Your task to perform on an android device: Go to accessibility settings Image 0: 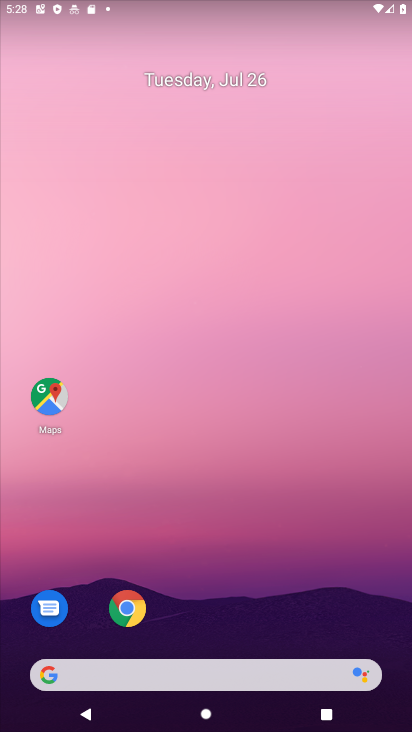
Step 0: press home button
Your task to perform on an android device: Go to accessibility settings Image 1: 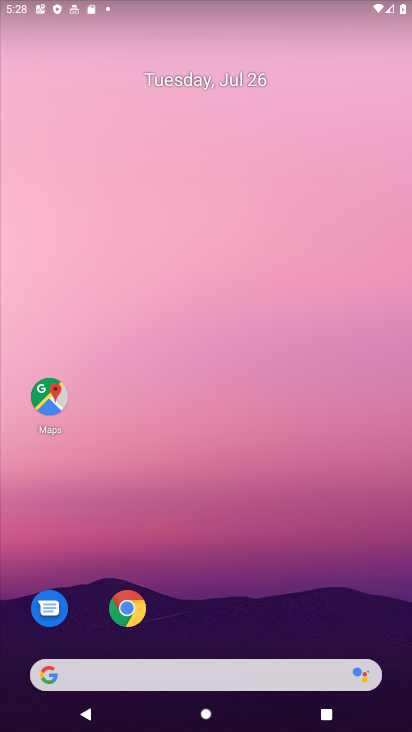
Step 1: drag from (255, 624) to (94, 177)
Your task to perform on an android device: Go to accessibility settings Image 2: 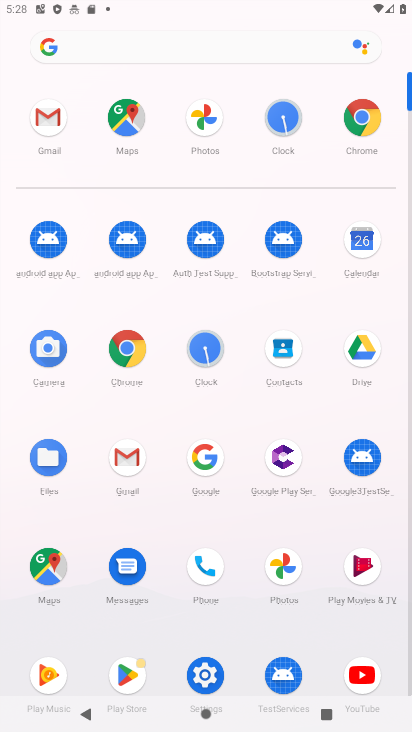
Step 2: click (209, 675)
Your task to perform on an android device: Go to accessibility settings Image 3: 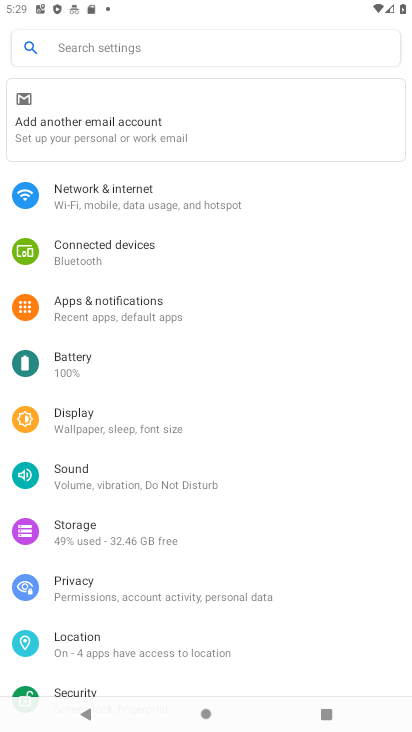
Step 3: drag from (293, 616) to (182, 93)
Your task to perform on an android device: Go to accessibility settings Image 4: 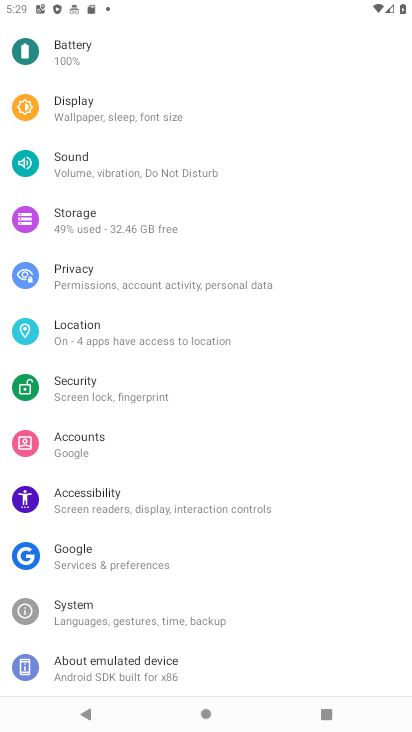
Step 4: click (100, 499)
Your task to perform on an android device: Go to accessibility settings Image 5: 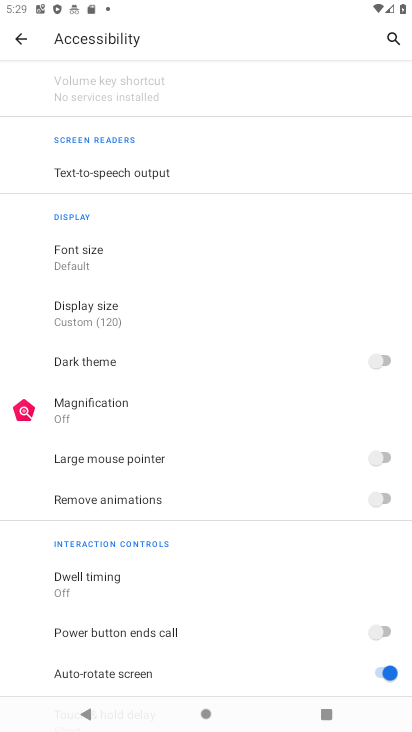
Step 5: task complete